Your task to perform on an android device: Open Yahoo.com Image 0: 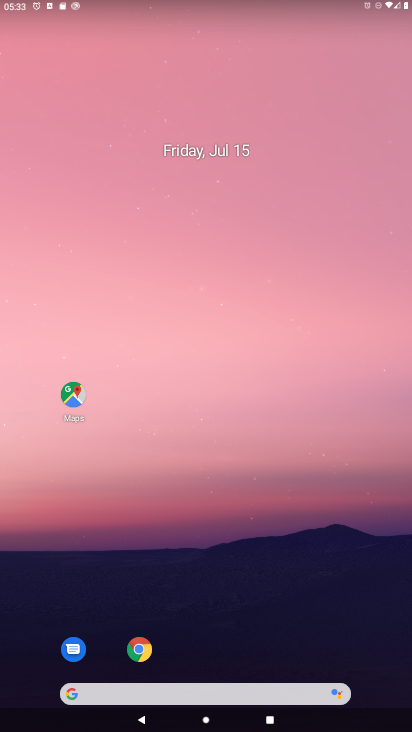
Step 0: click (137, 650)
Your task to perform on an android device: Open Yahoo.com Image 1: 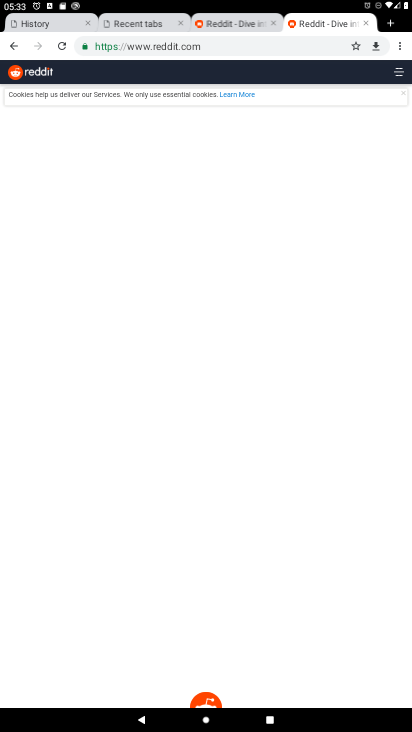
Step 1: click (218, 45)
Your task to perform on an android device: Open Yahoo.com Image 2: 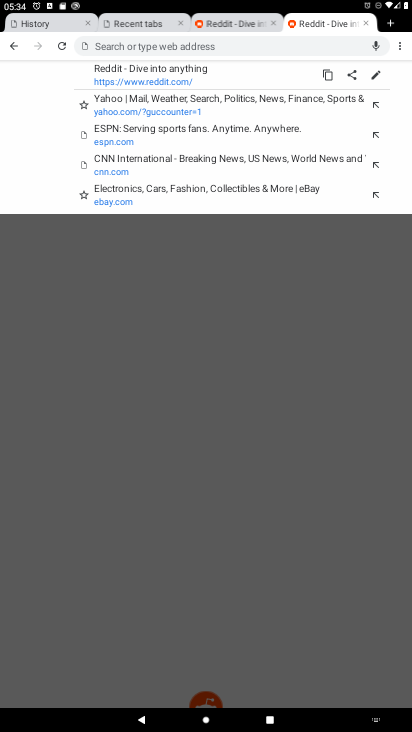
Step 2: type "yahoo.com"
Your task to perform on an android device: Open Yahoo.com Image 3: 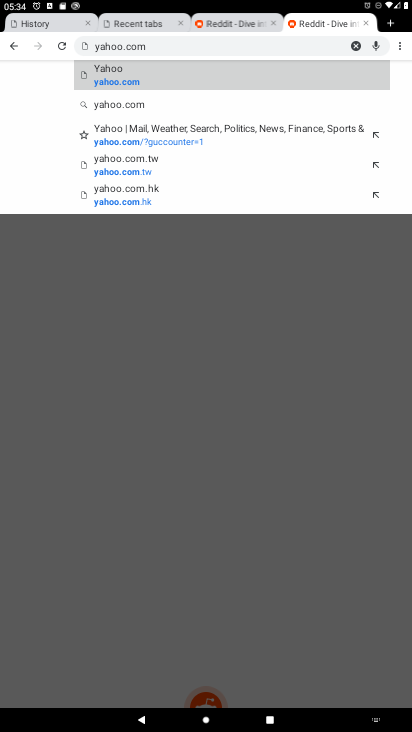
Step 3: click (127, 83)
Your task to perform on an android device: Open Yahoo.com Image 4: 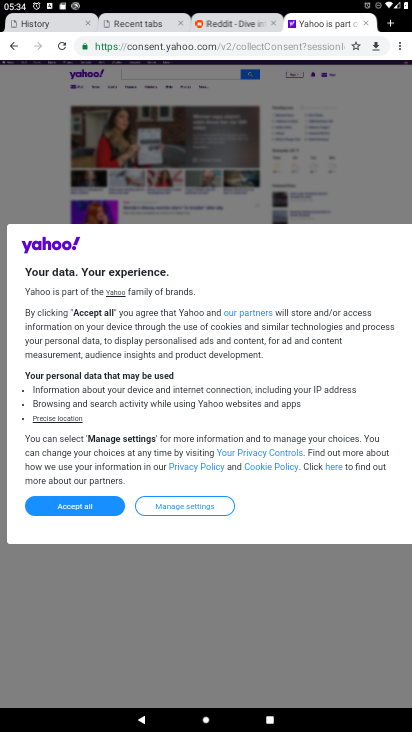
Step 4: click (73, 509)
Your task to perform on an android device: Open Yahoo.com Image 5: 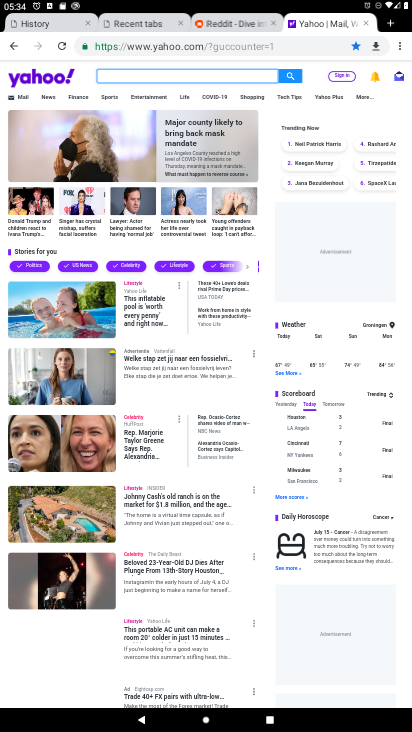
Step 5: task complete